Your task to perform on an android device: Open settings Image 0: 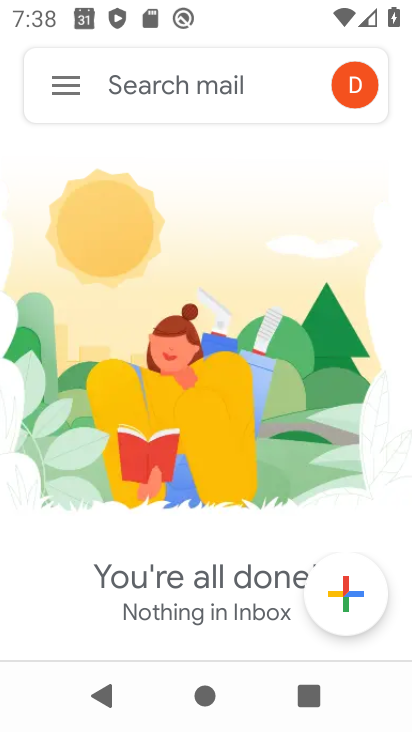
Step 0: press home button
Your task to perform on an android device: Open settings Image 1: 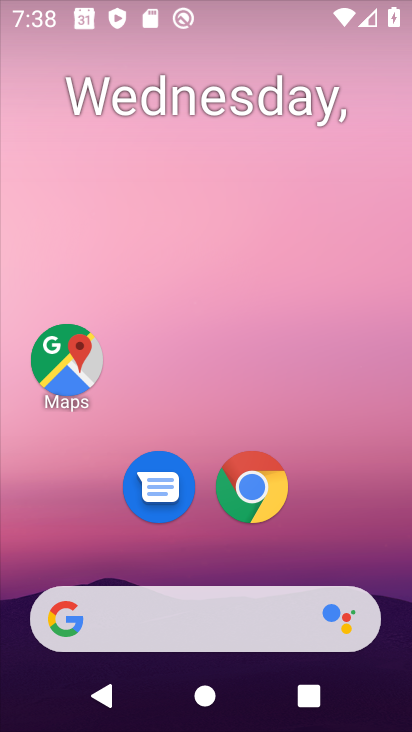
Step 1: drag from (315, 533) to (321, 1)
Your task to perform on an android device: Open settings Image 2: 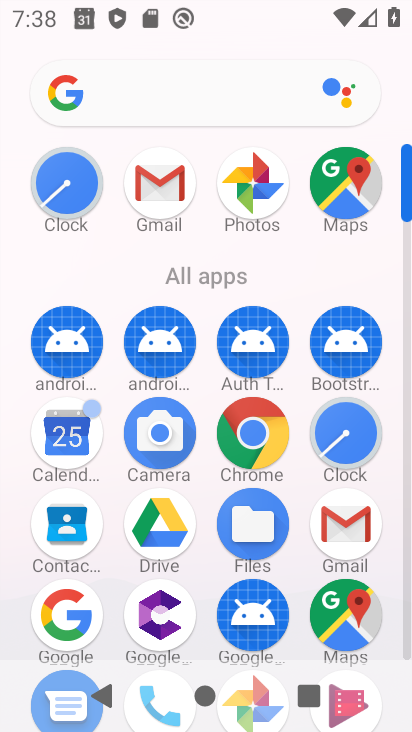
Step 2: click (406, 492)
Your task to perform on an android device: Open settings Image 3: 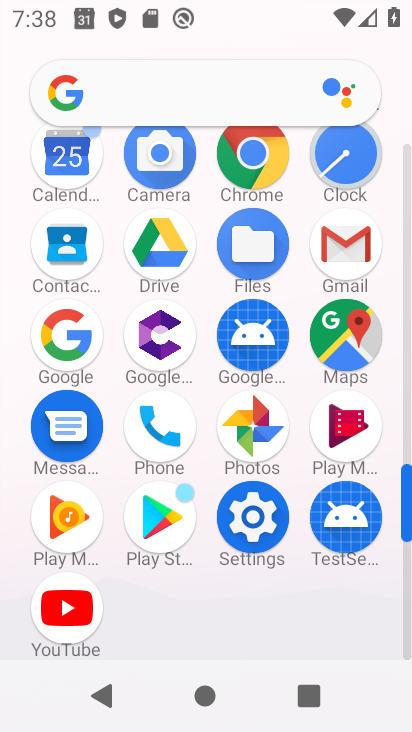
Step 3: click (253, 529)
Your task to perform on an android device: Open settings Image 4: 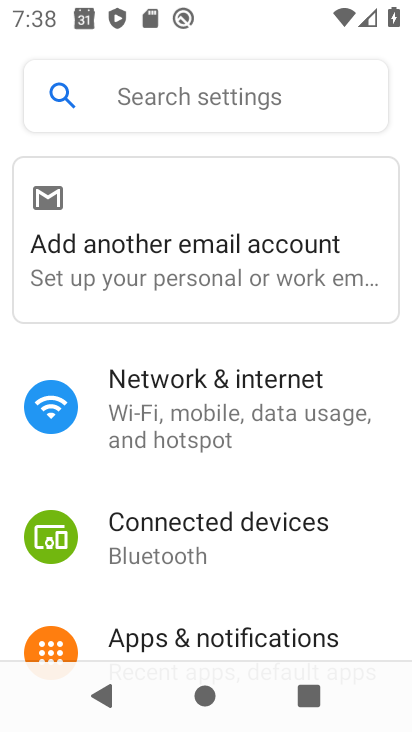
Step 4: task complete